Your task to perform on an android device: turn on translation in the chrome app Image 0: 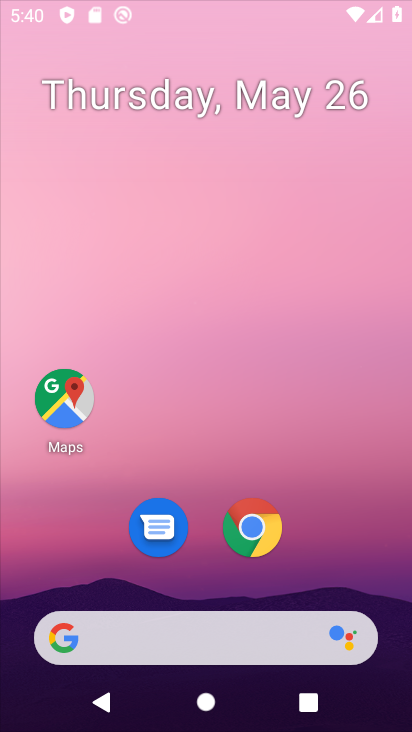
Step 0: press home button
Your task to perform on an android device: turn on translation in the chrome app Image 1: 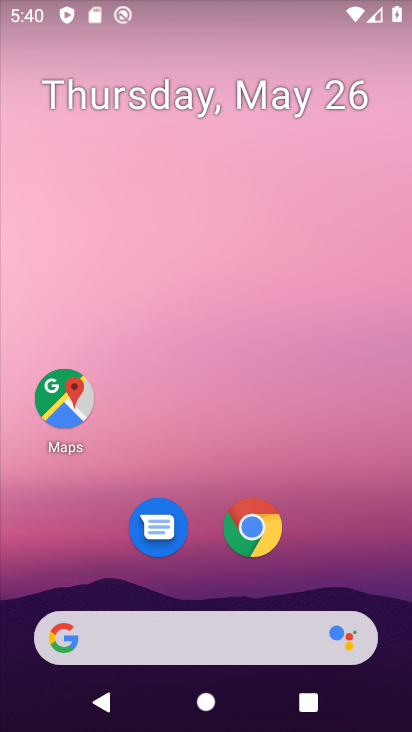
Step 1: click (248, 527)
Your task to perform on an android device: turn on translation in the chrome app Image 2: 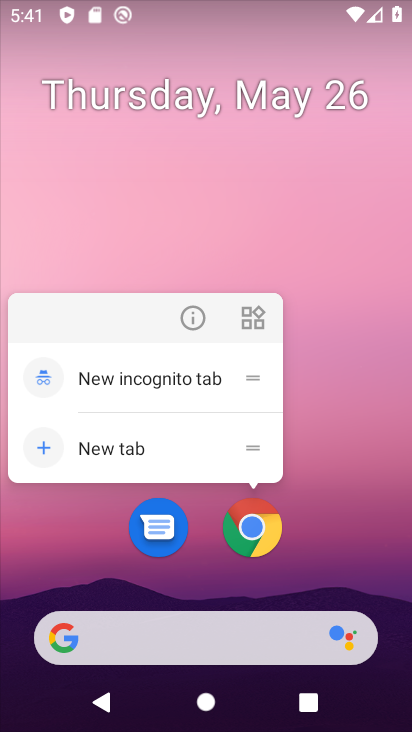
Step 2: click (255, 523)
Your task to perform on an android device: turn on translation in the chrome app Image 3: 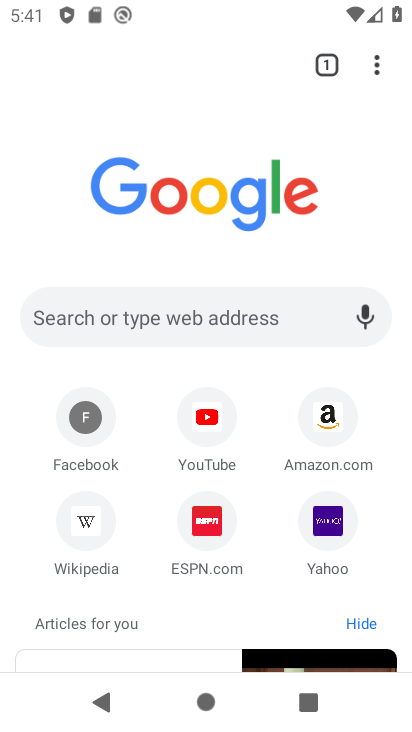
Step 3: click (369, 67)
Your task to perform on an android device: turn on translation in the chrome app Image 4: 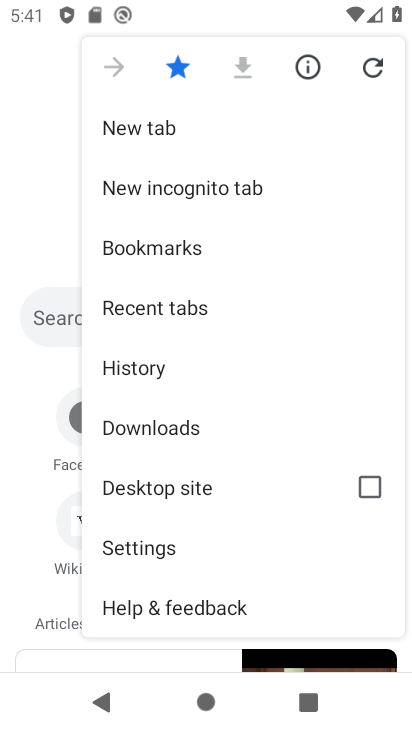
Step 4: click (130, 546)
Your task to perform on an android device: turn on translation in the chrome app Image 5: 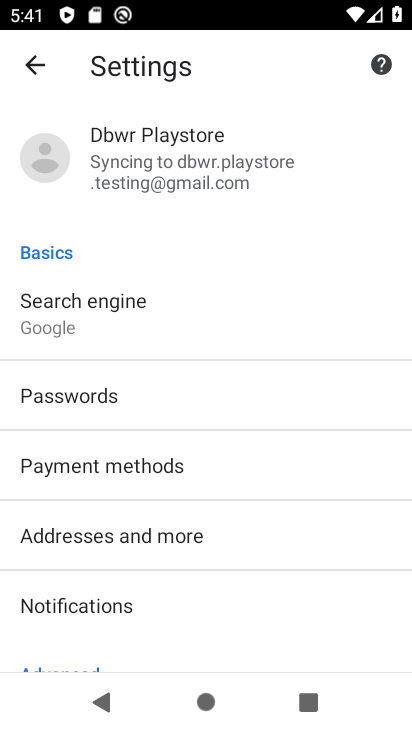
Step 5: drag from (126, 631) to (136, 200)
Your task to perform on an android device: turn on translation in the chrome app Image 6: 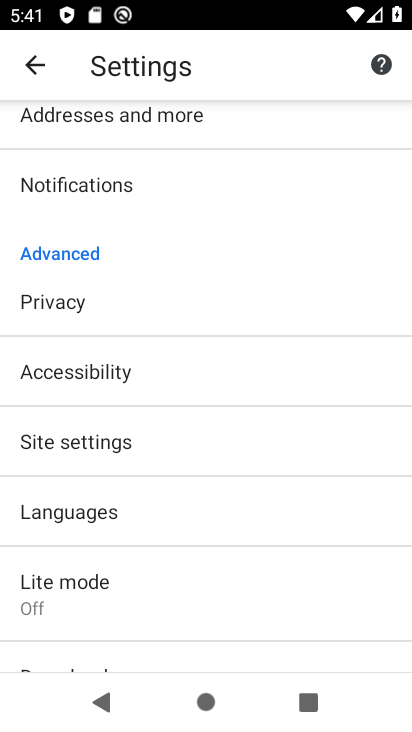
Step 6: drag from (73, 642) to (118, 177)
Your task to perform on an android device: turn on translation in the chrome app Image 7: 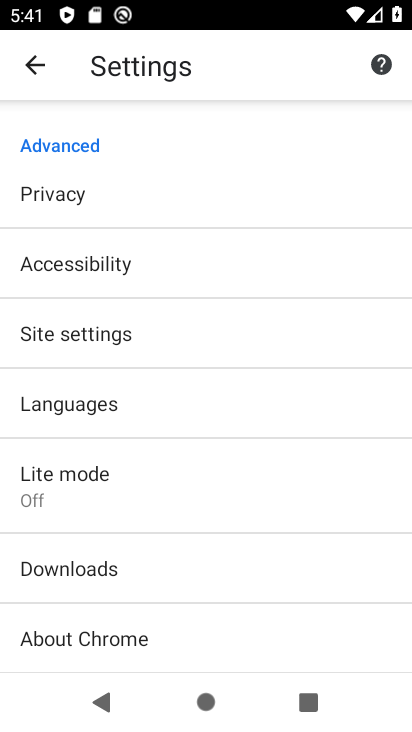
Step 7: click (58, 405)
Your task to perform on an android device: turn on translation in the chrome app Image 8: 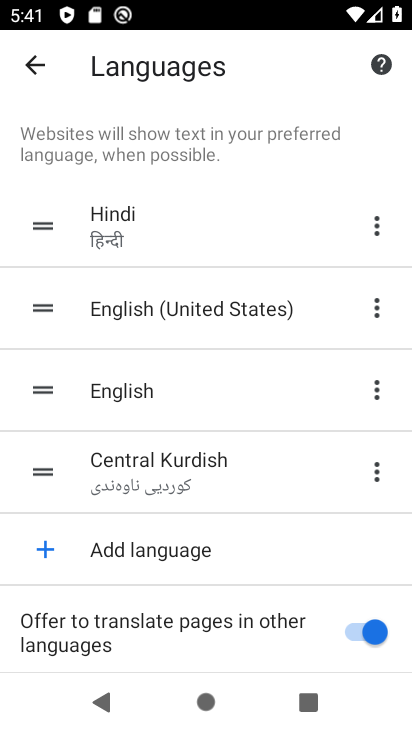
Step 8: task complete